Your task to perform on an android device: Open a new incognito window in Chrome Image 0: 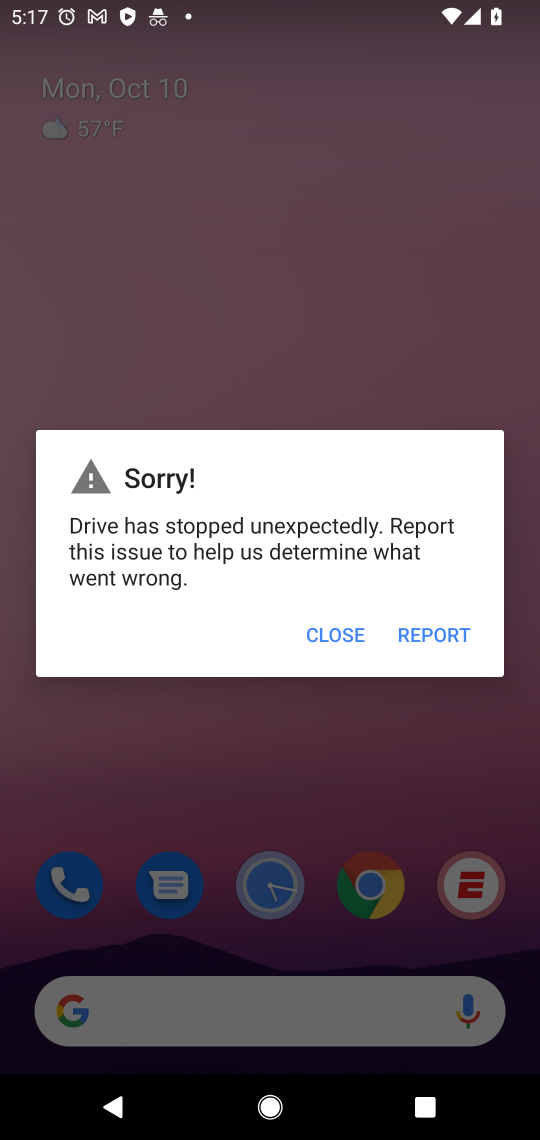
Step 0: press home button
Your task to perform on an android device: Open a new incognito window in Chrome Image 1: 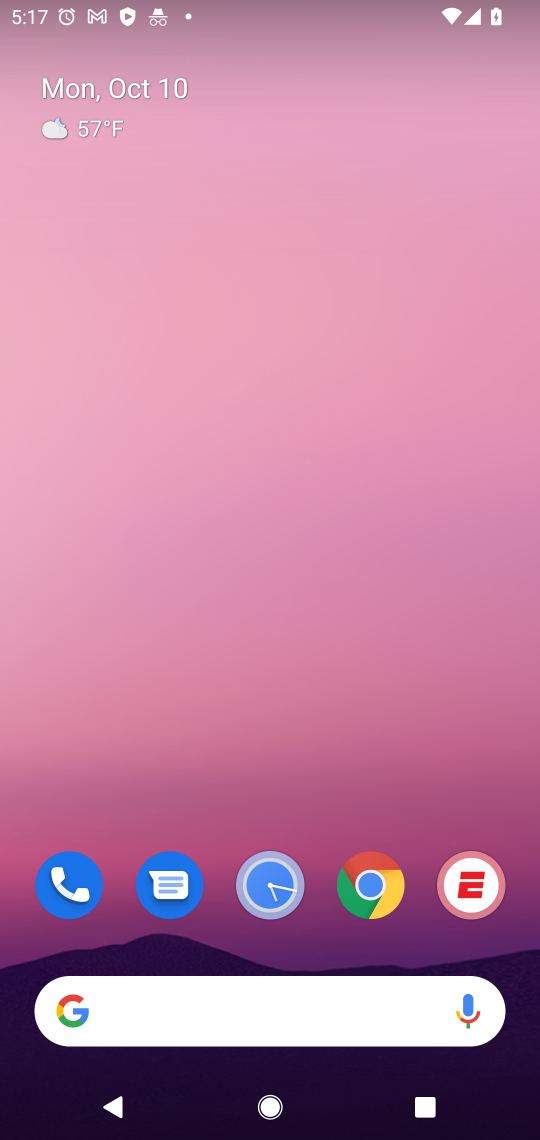
Step 1: click (372, 884)
Your task to perform on an android device: Open a new incognito window in Chrome Image 2: 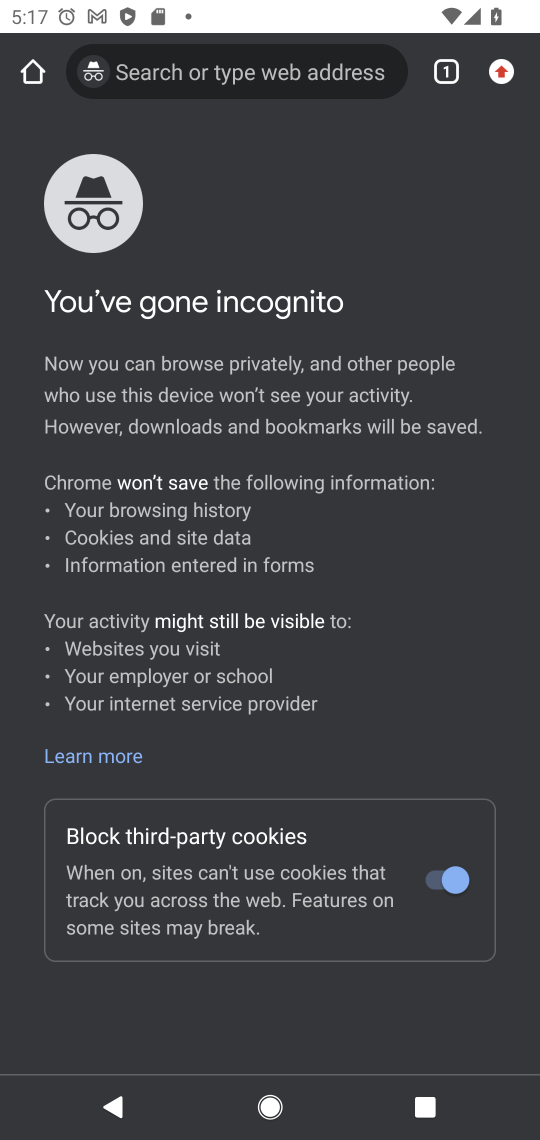
Step 2: click (446, 68)
Your task to perform on an android device: Open a new incognito window in Chrome Image 3: 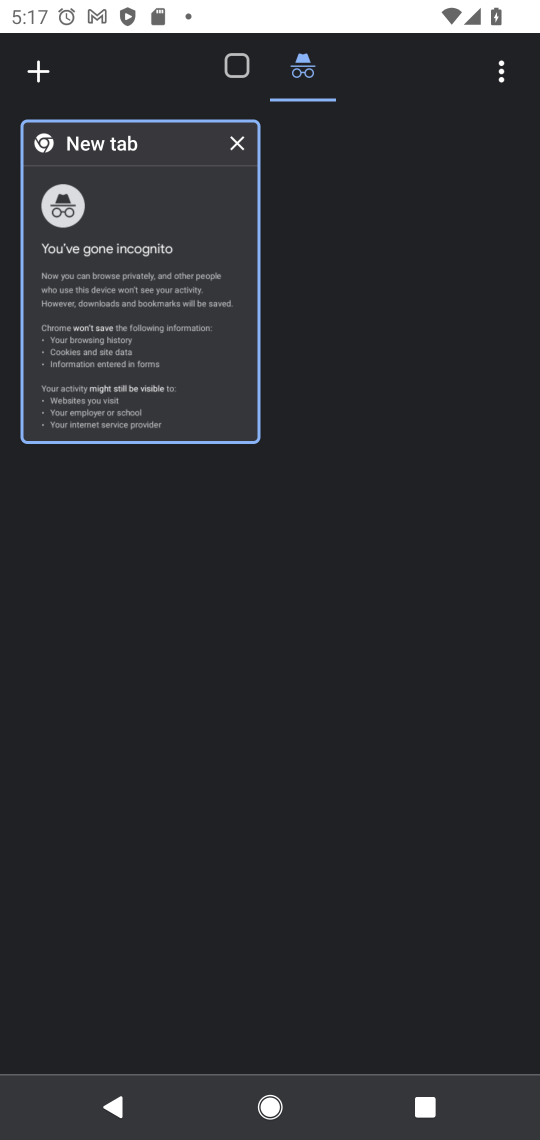
Step 3: click (40, 75)
Your task to perform on an android device: Open a new incognito window in Chrome Image 4: 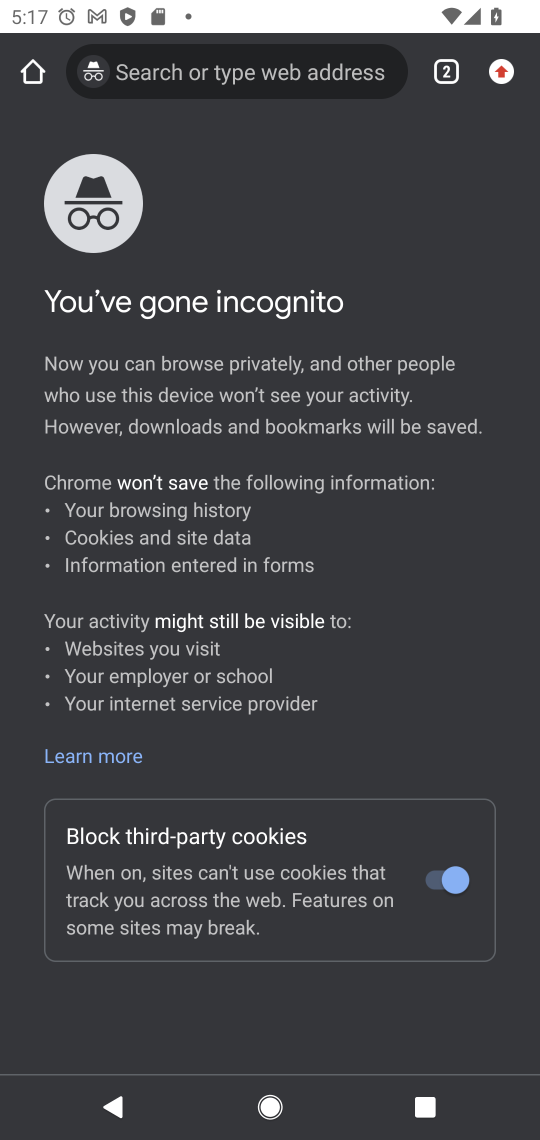
Step 4: task complete